Your task to perform on an android device: Search for vegetarian restaurants on Maps Image 0: 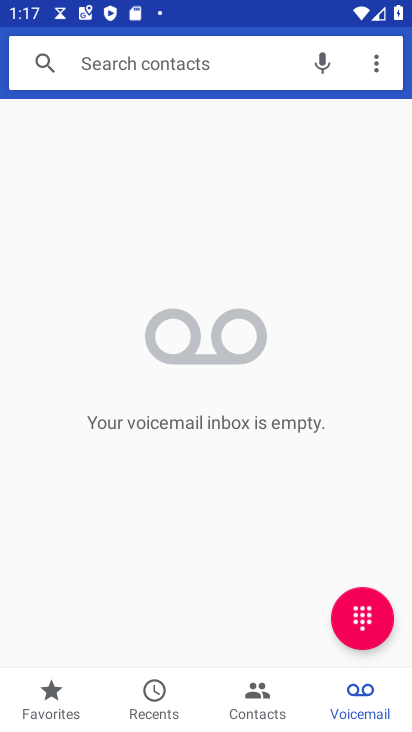
Step 0: press home button
Your task to perform on an android device: Search for vegetarian restaurants on Maps Image 1: 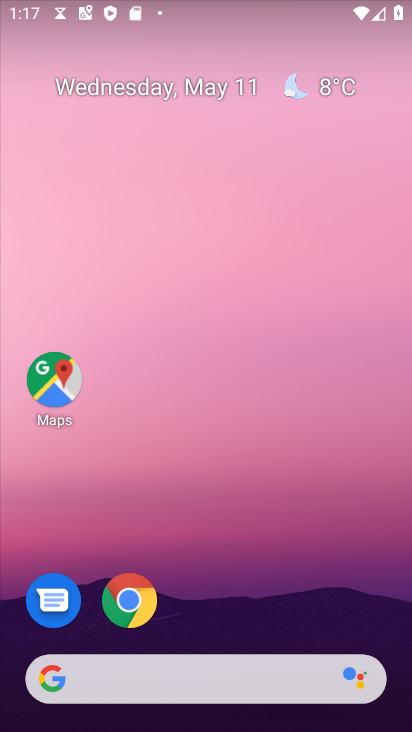
Step 1: click (49, 359)
Your task to perform on an android device: Search for vegetarian restaurants on Maps Image 2: 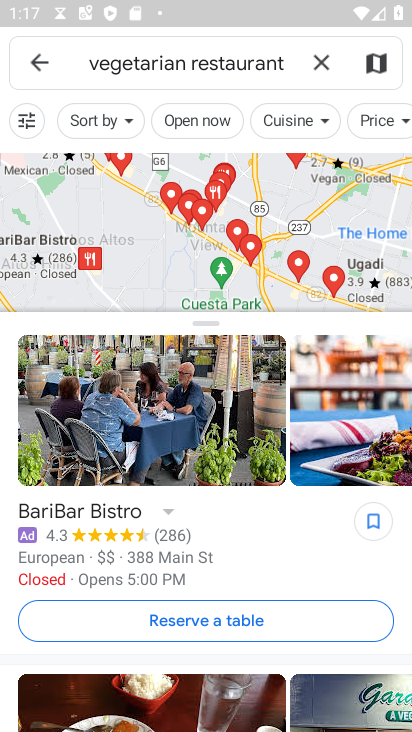
Step 2: task complete